Your task to perform on an android device: open device folders in google photos Image 0: 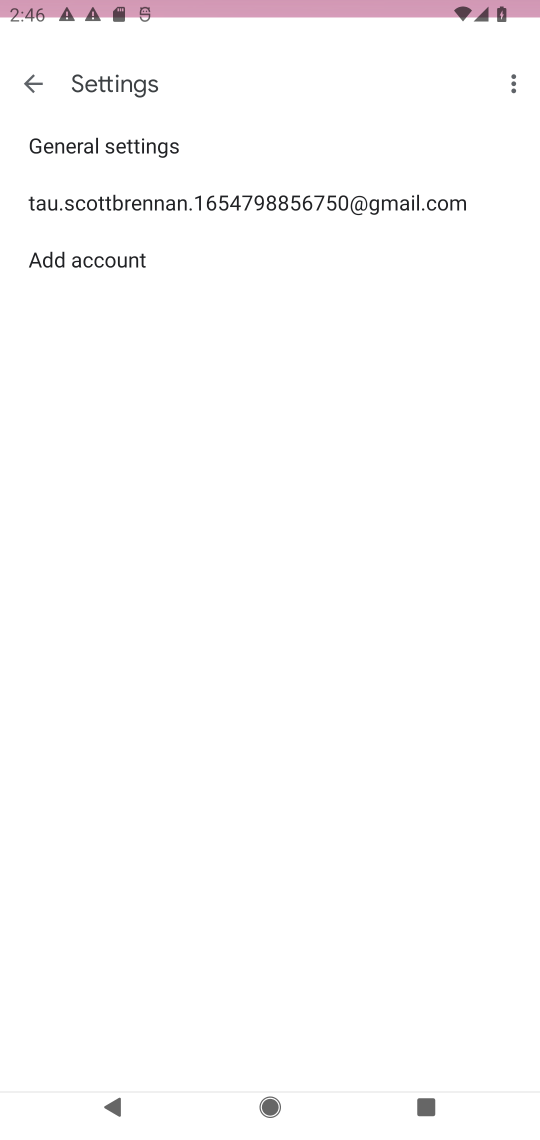
Step 0: press home button
Your task to perform on an android device: open device folders in google photos Image 1: 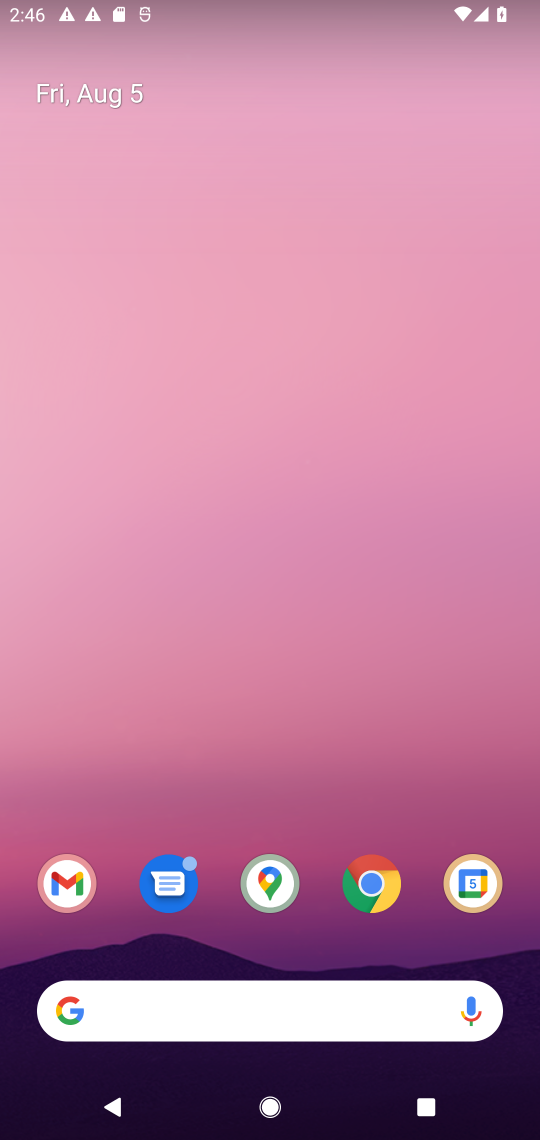
Step 1: drag from (323, 937) to (335, 102)
Your task to perform on an android device: open device folders in google photos Image 2: 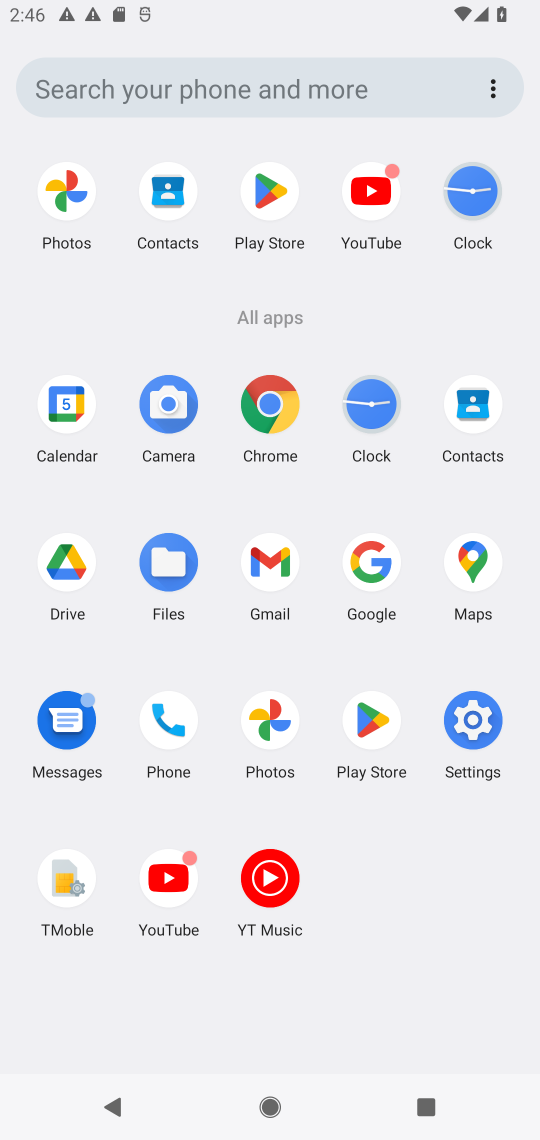
Step 2: click (265, 705)
Your task to perform on an android device: open device folders in google photos Image 3: 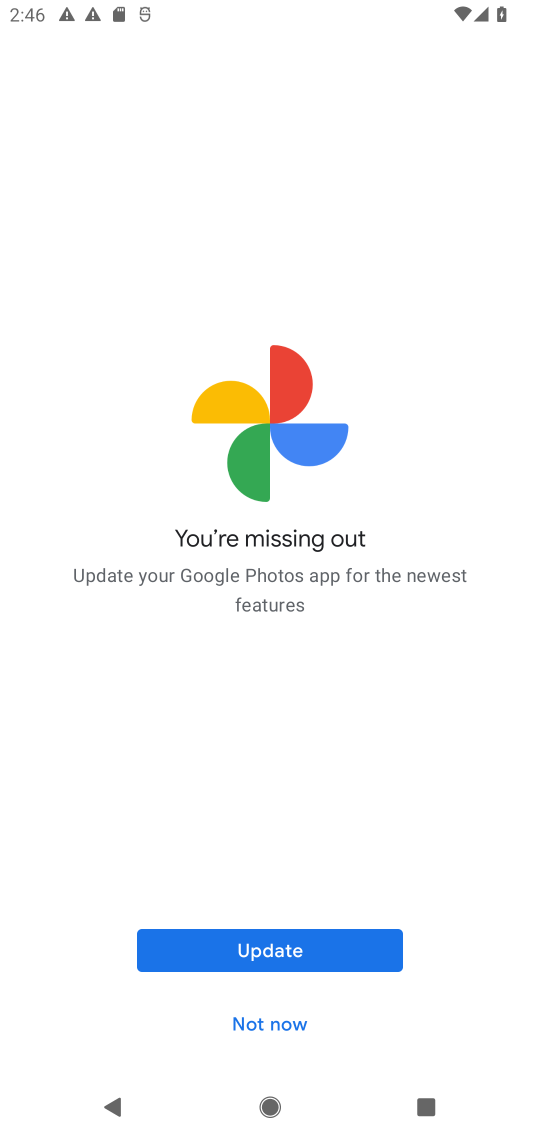
Step 3: click (265, 1020)
Your task to perform on an android device: open device folders in google photos Image 4: 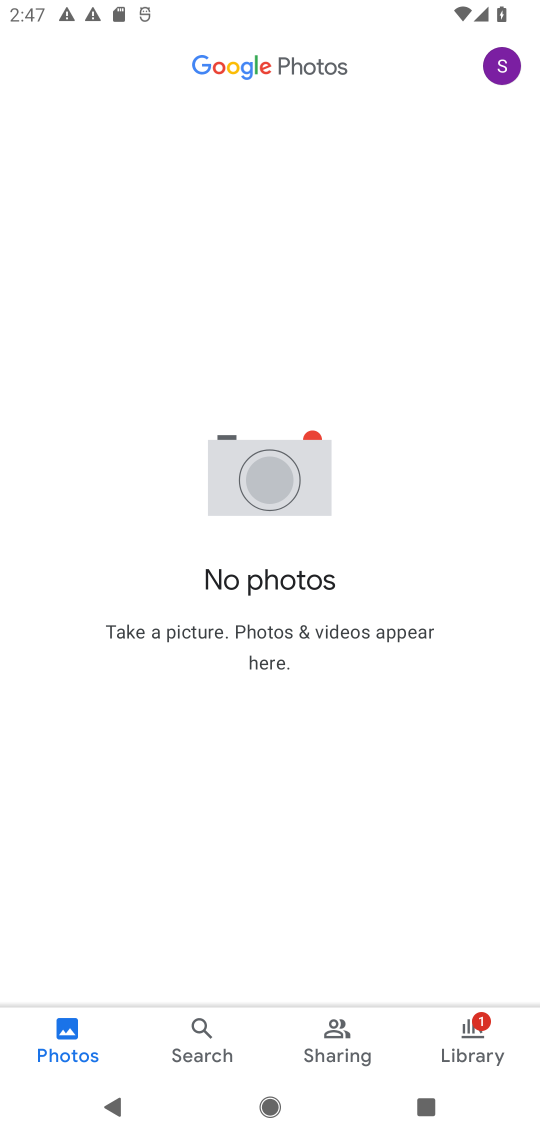
Step 4: click (193, 1016)
Your task to perform on an android device: open device folders in google photos Image 5: 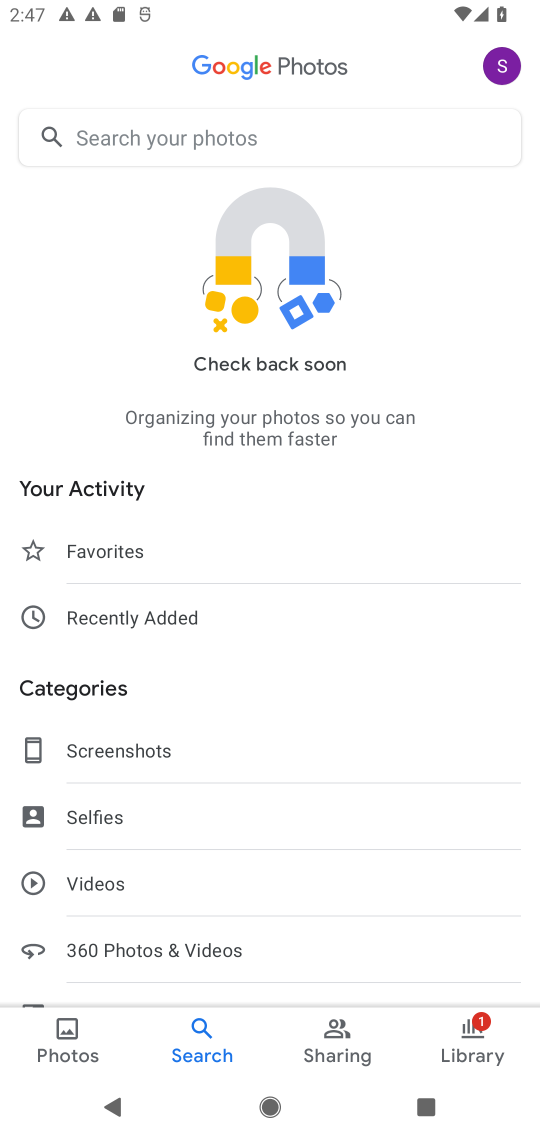
Step 5: click (177, 122)
Your task to perform on an android device: open device folders in google photos Image 6: 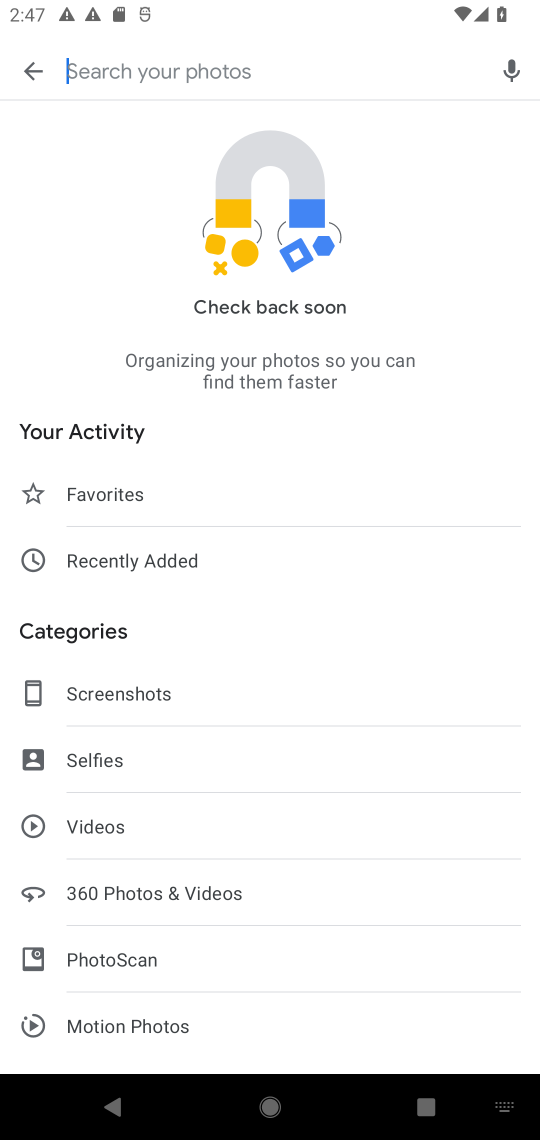
Step 6: type "device folders"
Your task to perform on an android device: open device folders in google photos Image 7: 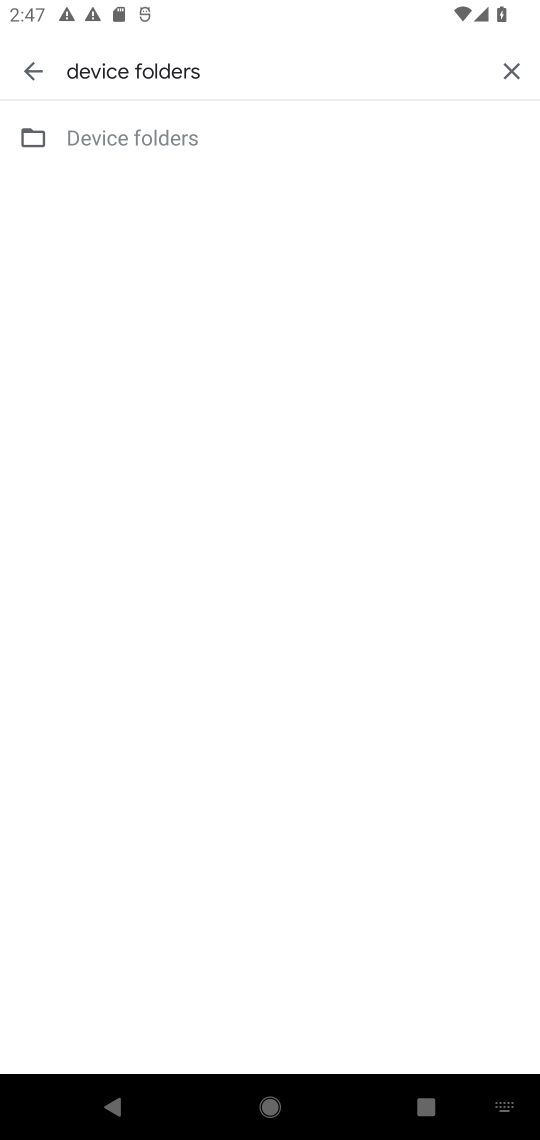
Step 7: click (115, 137)
Your task to perform on an android device: open device folders in google photos Image 8: 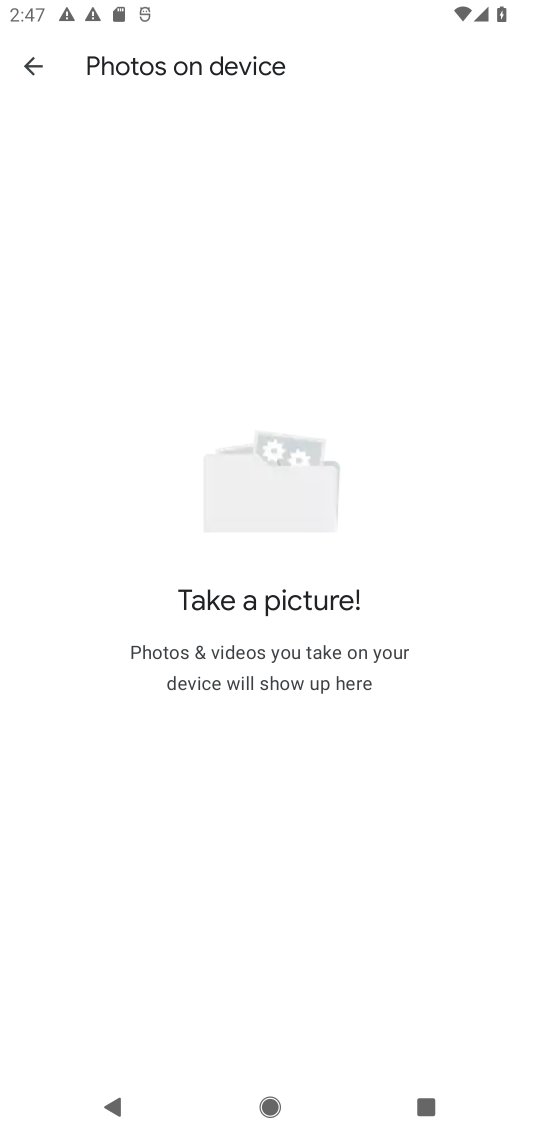
Step 8: task complete